Your task to perform on an android device: toggle sleep mode Image 0: 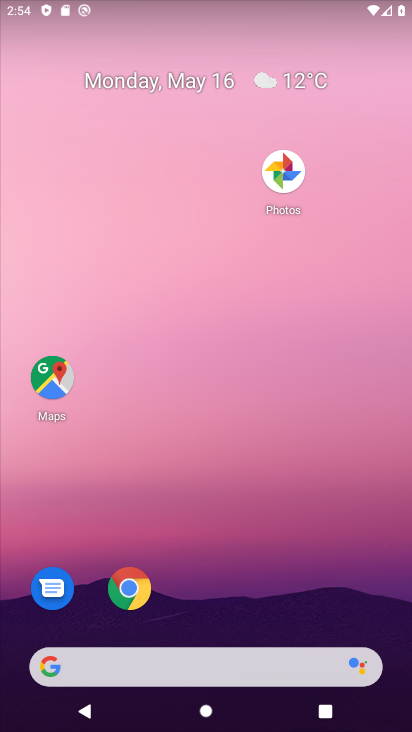
Step 0: drag from (262, 629) to (239, 266)
Your task to perform on an android device: toggle sleep mode Image 1: 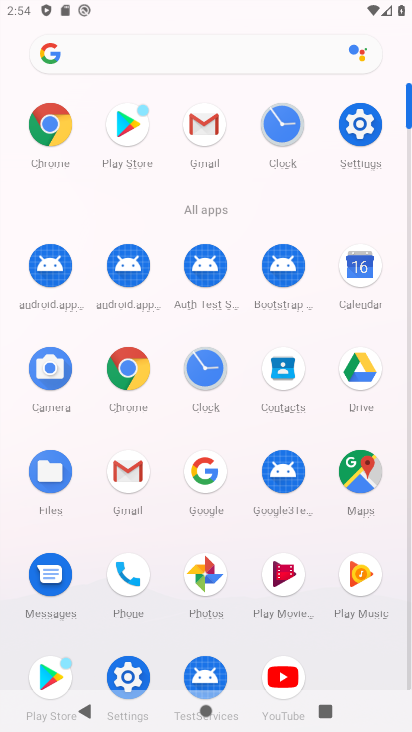
Step 1: click (366, 112)
Your task to perform on an android device: toggle sleep mode Image 2: 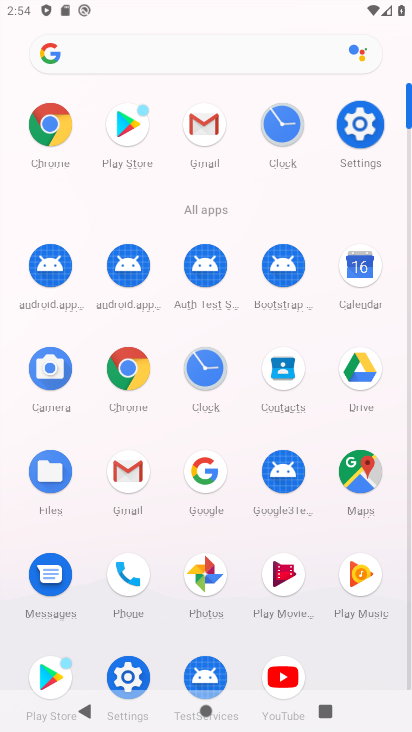
Step 2: click (366, 112)
Your task to perform on an android device: toggle sleep mode Image 3: 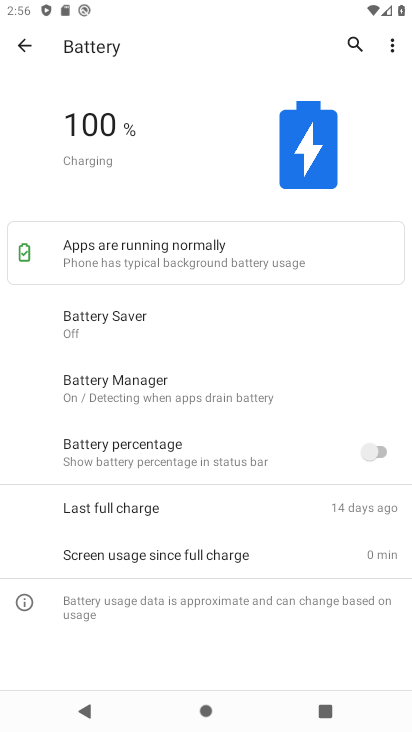
Step 3: task complete